Your task to perform on an android device: turn on wifi Image 0: 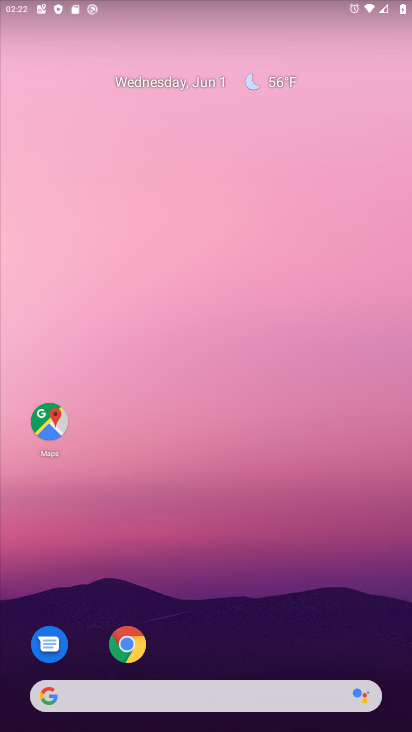
Step 0: drag from (168, 597) to (156, 241)
Your task to perform on an android device: turn on wifi Image 1: 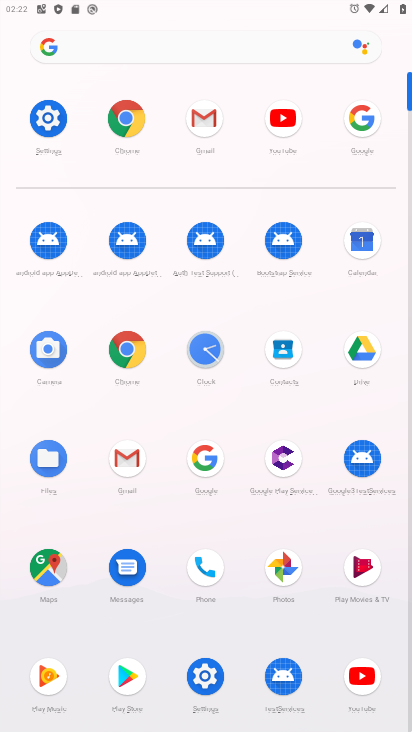
Step 1: click (42, 128)
Your task to perform on an android device: turn on wifi Image 2: 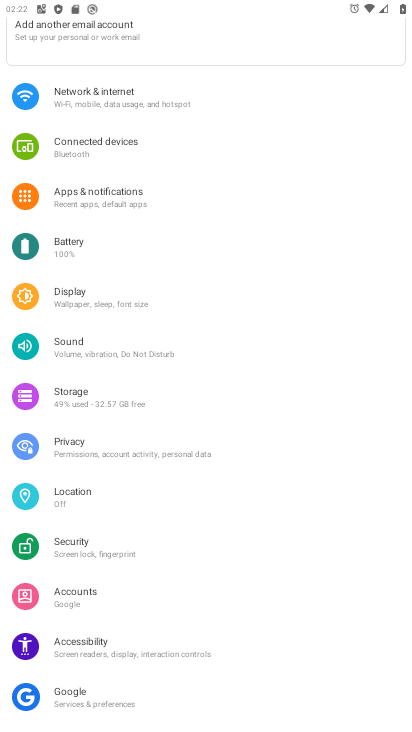
Step 2: click (78, 102)
Your task to perform on an android device: turn on wifi Image 3: 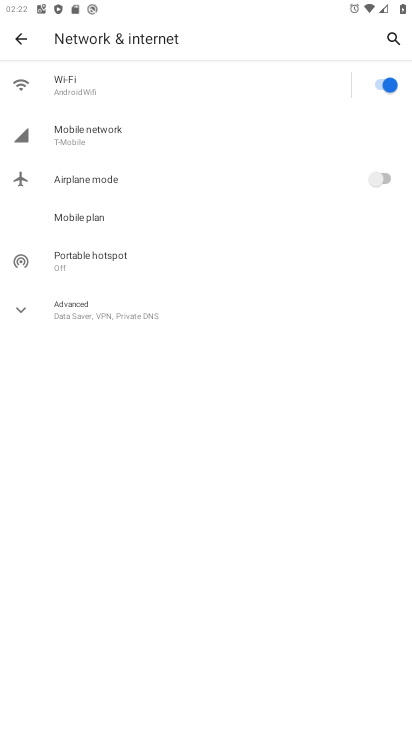
Step 3: task complete